Your task to perform on an android device: manage bookmarks in the chrome app Image 0: 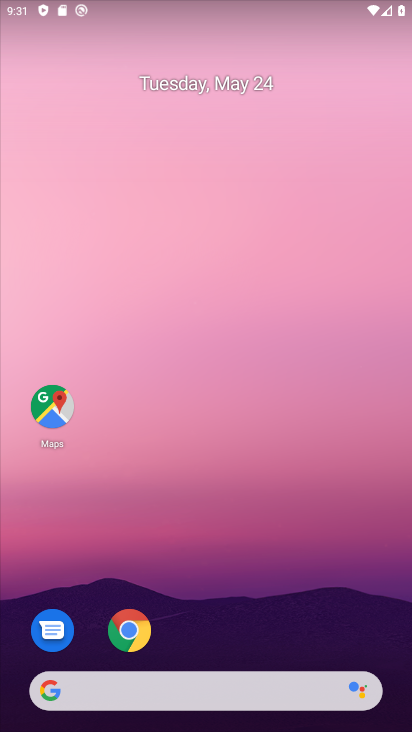
Step 0: click (126, 625)
Your task to perform on an android device: manage bookmarks in the chrome app Image 1: 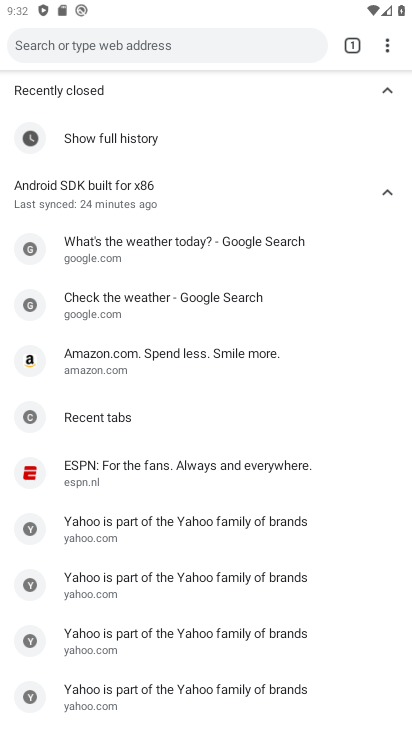
Step 1: drag from (187, 637) to (198, 261)
Your task to perform on an android device: manage bookmarks in the chrome app Image 2: 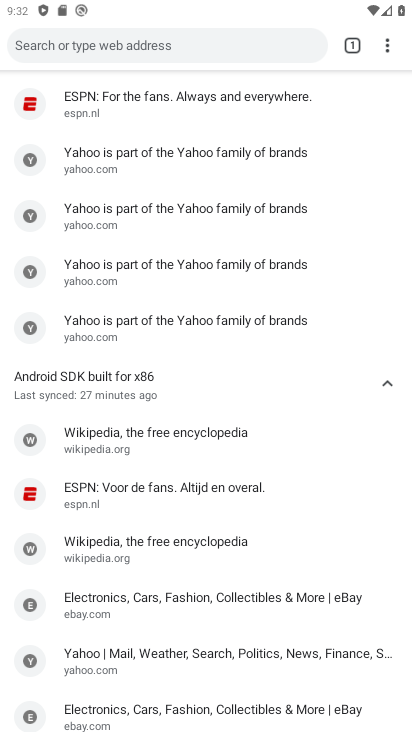
Step 2: click (152, 710)
Your task to perform on an android device: manage bookmarks in the chrome app Image 3: 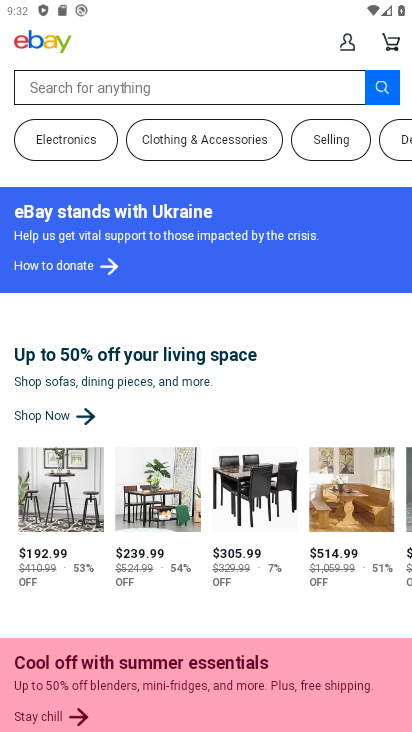
Step 3: task complete